Your task to perform on an android device: change the clock display to digital Image 0: 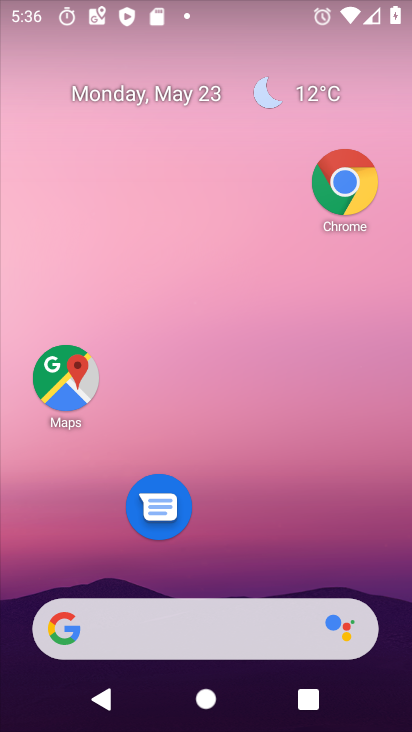
Step 0: drag from (266, 306) to (337, 100)
Your task to perform on an android device: change the clock display to digital Image 1: 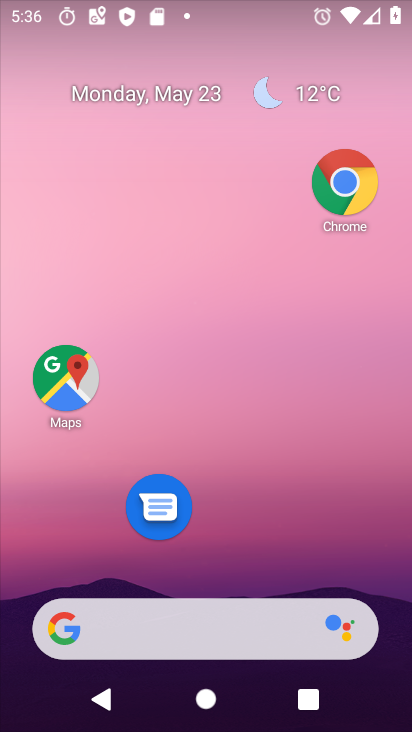
Step 1: drag from (215, 570) to (189, 151)
Your task to perform on an android device: change the clock display to digital Image 2: 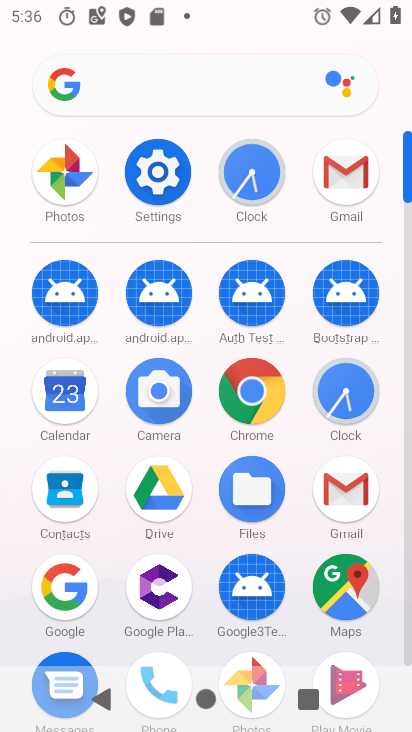
Step 2: click (256, 183)
Your task to perform on an android device: change the clock display to digital Image 3: 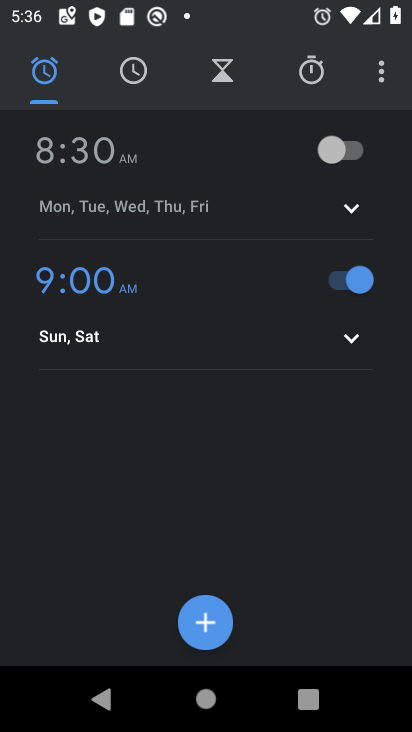
Step 3: click (396, 85)
Your task to perform on an android device: change the clock display to digital Image 4: 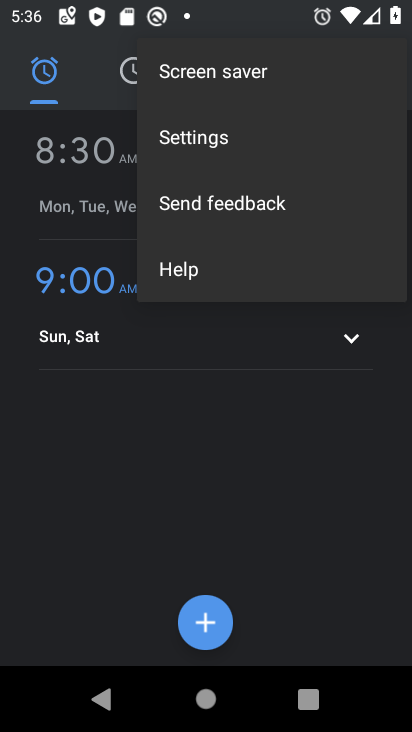
Step 4: click (312, 110)
Your task to perform on an android device: change the clock display to digital Image 5: 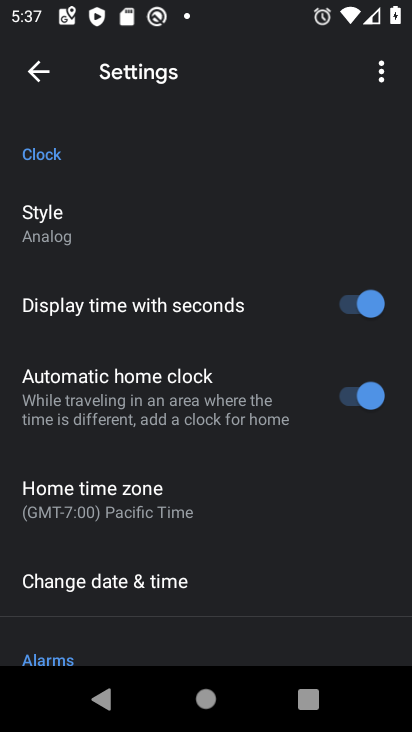
Step 5: click (127, 241)
Your task to perform on an android device: change the clock display to digital Image 6: 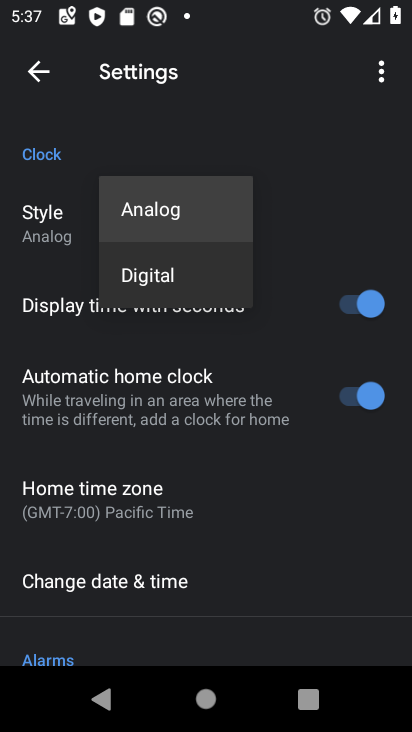
Step 6: click (176, 286)
Your task to perform on an android device: change the clock display to digital Image 7: 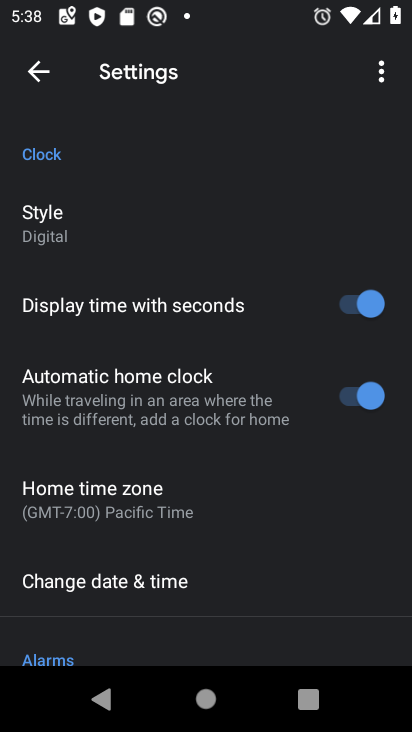
Step 7: task complete